Your task to perform on an android device: turn on showing notifications on the lock screen Image 0: 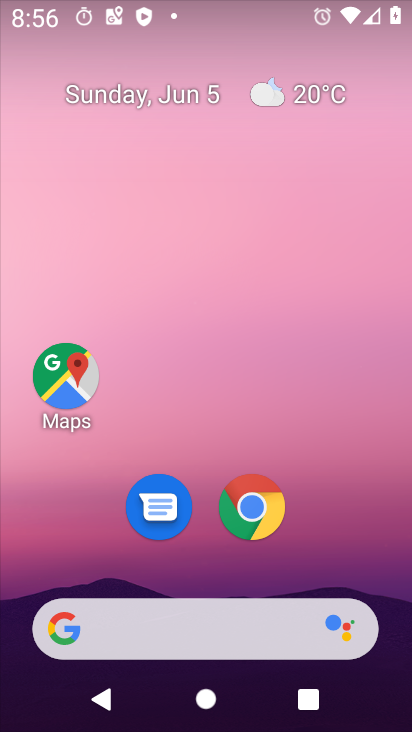
Step 0: drag from (350, 551) to (212, 45)
Your task to perform on an android device: turn on showing notifications on the lock screen Image 1: 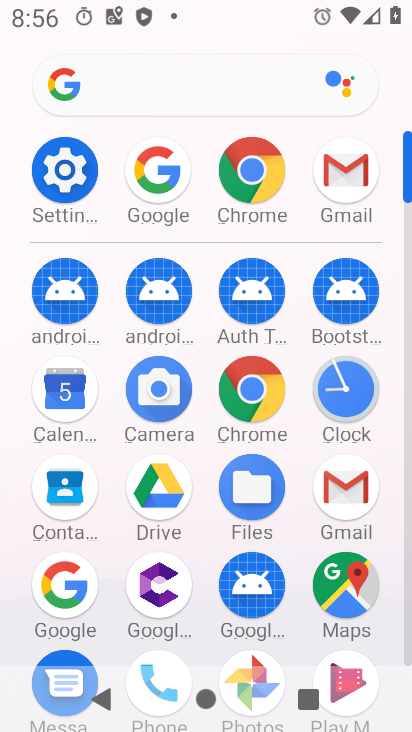
Step 1: drag from (13, 584) to (0, 213)
Your task to perform on an android device: turn on showing notifications on the lock screen Image 2: 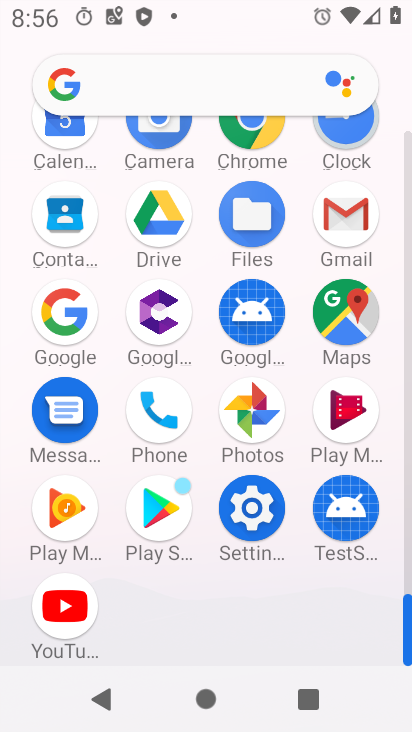
Step 2: click (249, 504)
Your task to perform on an android device: turn on showing notifications on the lock screen Image 3: 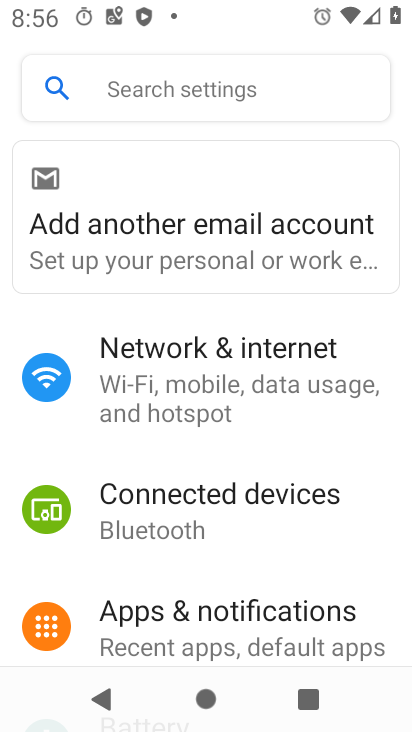
Step 3: drag from (276, 575) to (295, 340)
Your task to perform on an android device: turn on showing notifications on the lock screen Image 4: 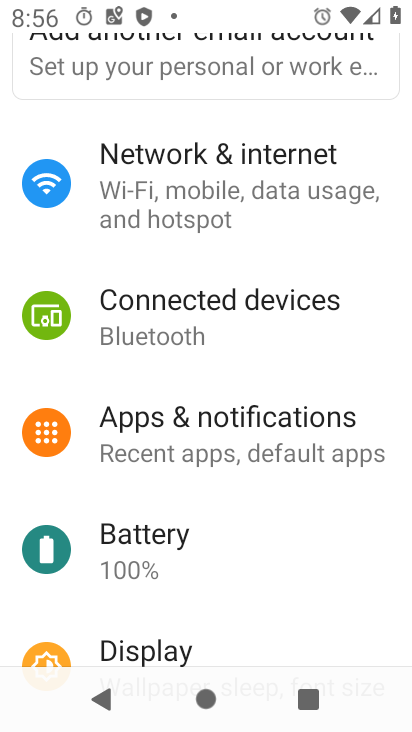
Step 4: click (196, 416)
Your task to perform on an android device: turn on showing notifications on the lock screen Image 5: 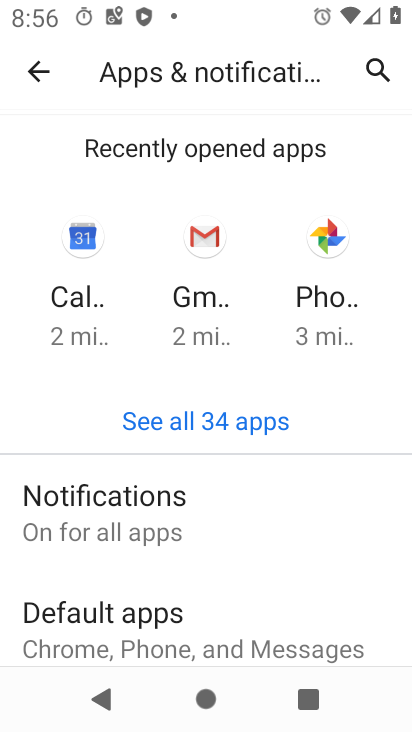
Step 5: click (184, 504)
Your task to perform on an android device: turn on showing notifications on the lock screen Image 6: 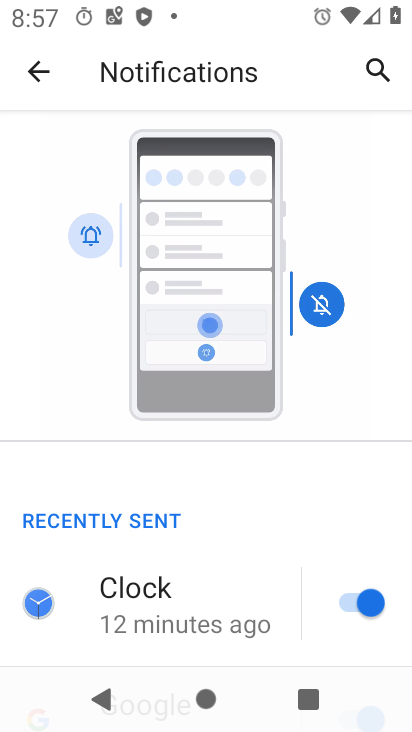
Step 6: drag from (210, 547) to (237, 175)
Your task to perform on an android device: turn on showing notifications on the lock screen Image 7: 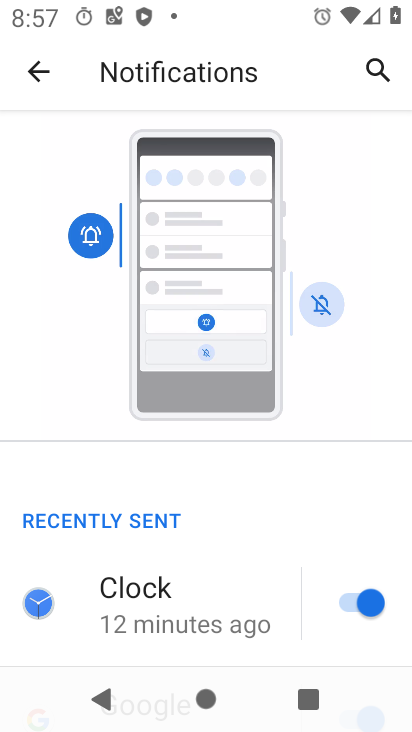
Step 7: drag from (218, 489) to (246, 138)
Your task to perform on an android device: turn on showing notifications on the lock screen Image 8: 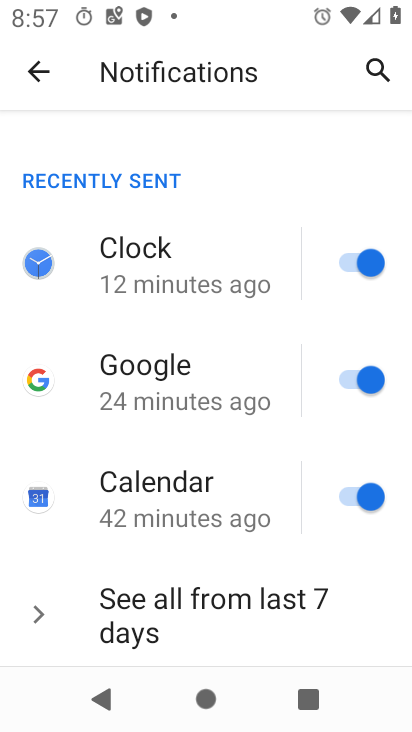
Step 8: drag from (238, 547) to (257, 182)
Your task to perform on an android device: turn on showing notifications on the lock screen Image 9: 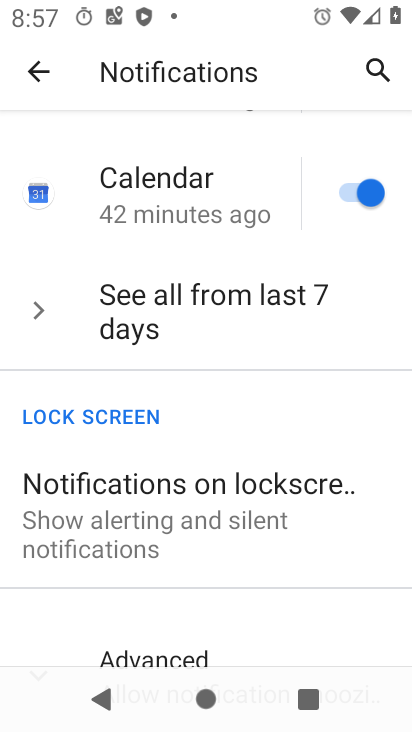
Step 9: click (219, 504)
Your task to perform on an android device: turn on showing notifications on the lock screen Image 10: 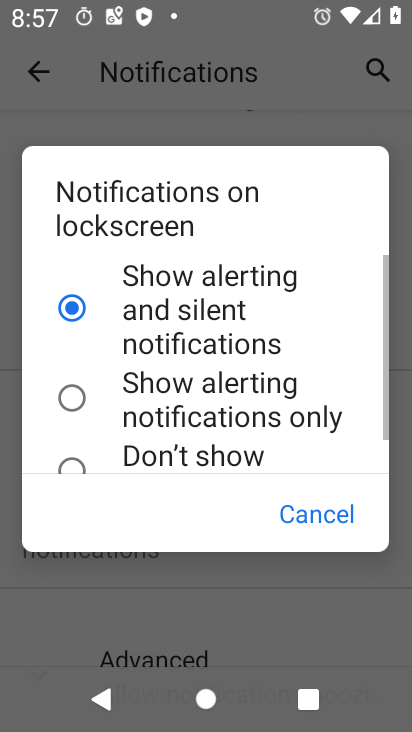
Step 10: click (200, 285)
Your task to perform on an android device: turn on showing notifications on the lock screen Image 11: 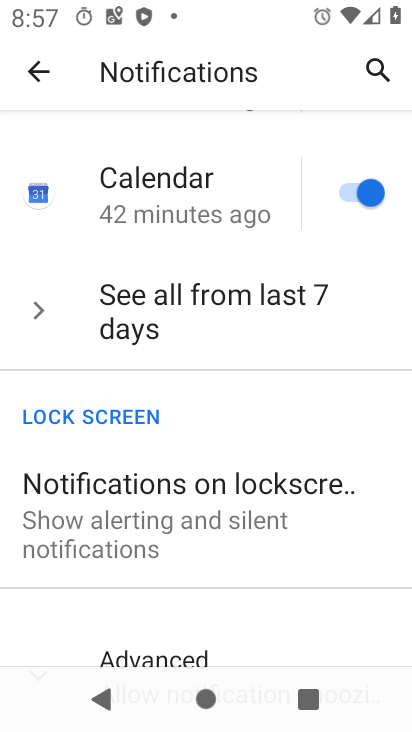
Step 11: task complete